Your task to perform on an android device: Do I have any events today? Image 0: 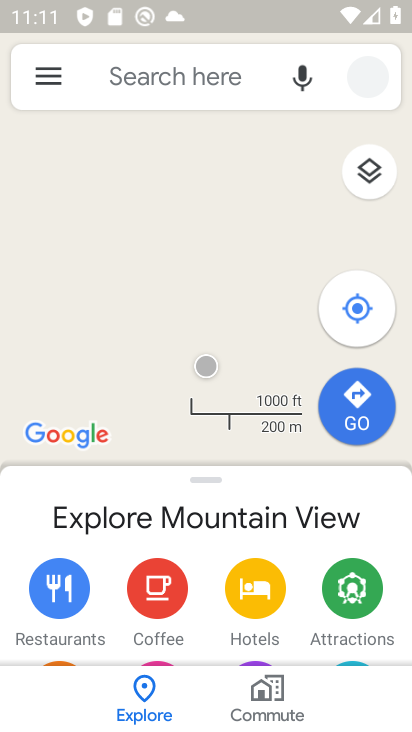
Step 0: press home button
Your task to perform on an android device: Do I have any events today? Image 1: 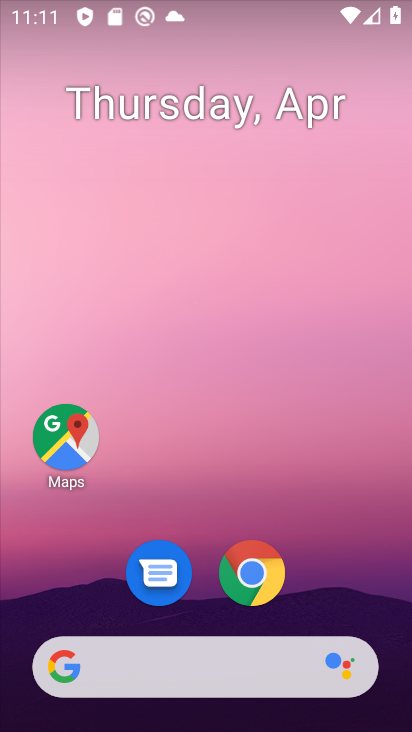
Step 1: drag from (314, 597) to (310, 85)
Your task to perform on an android device: Do I have any events today? Image 2: 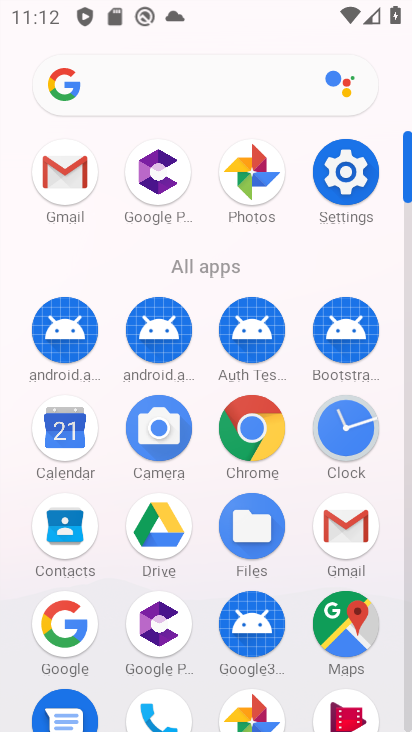
Step 2: click (60, 436)
Your task to perform on an android device: Do I have any events today? Image 3: 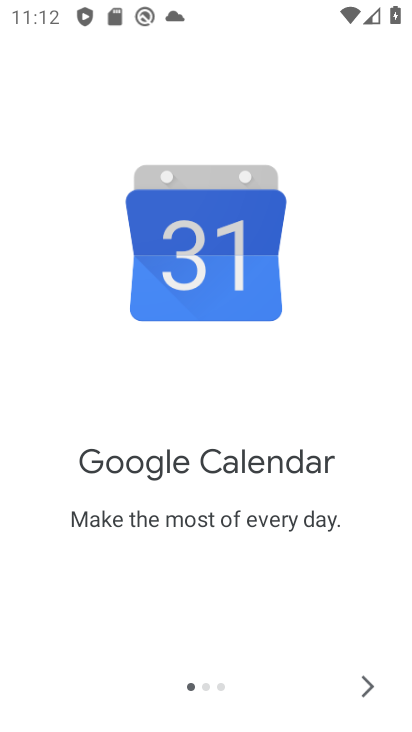
Step 3: click (364, 680)
Your task to perform on an android device: Do I have any events today? Image 4: 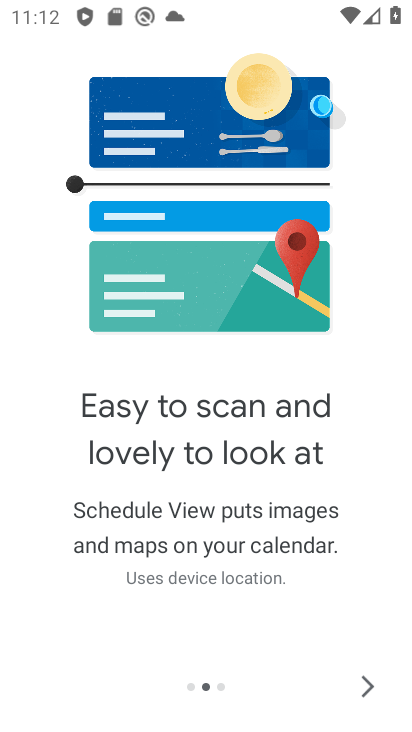
Step 4: click (364, 680)
Your task to perform on an android device: Do I have any events today? Image 5: 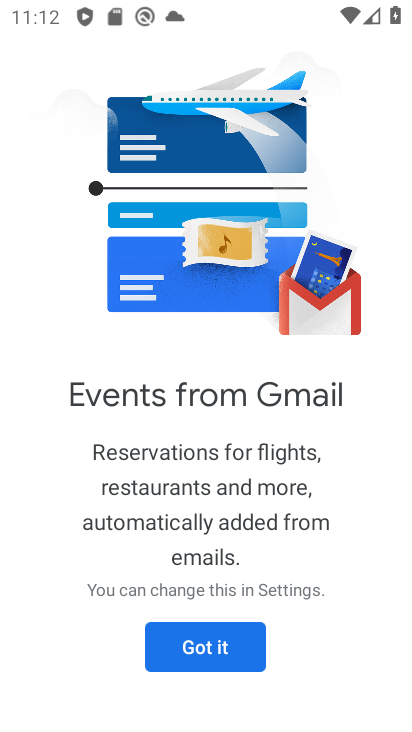
Step 5: click (236, 649)
Your task to perform on an android device: Do I have any events today? Image 6: 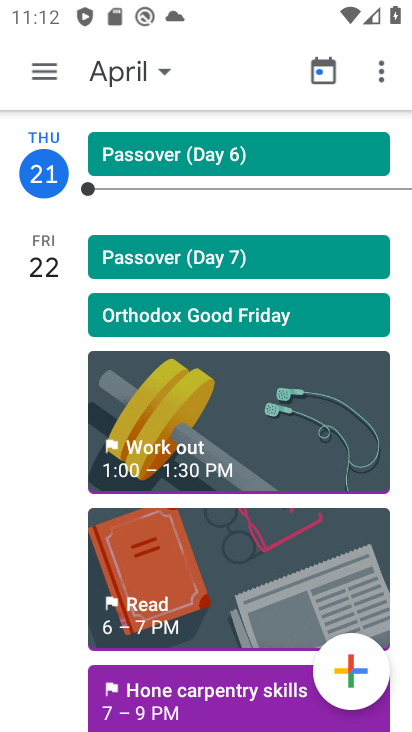
Step 6: click (56, 70)
Your task to perform on an android device: Do I have any events today? Image 7: 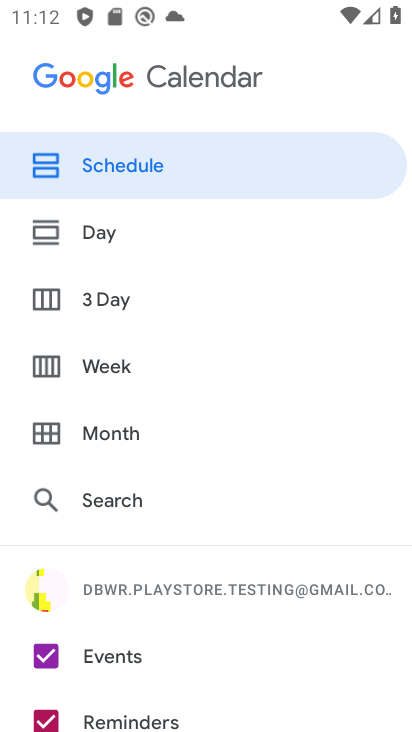
Step 7: drag from (227, 679) to (217, 262)
Your task to perform on an android device: Do I have any events today? Image 8: 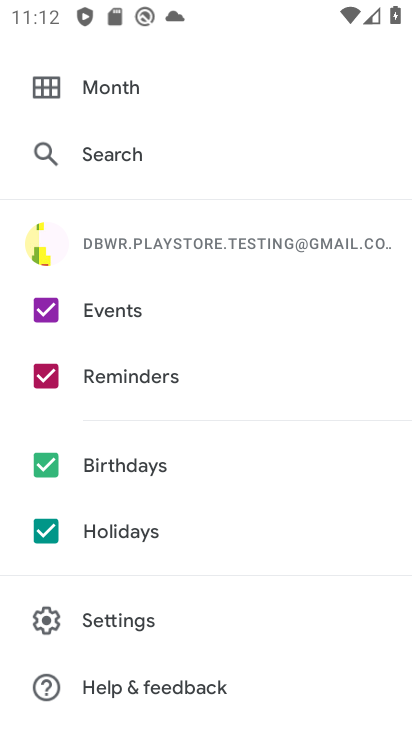
Step 8: click (46, 524)
Your task to perform on an android device: Do I have any events today? Image 9: 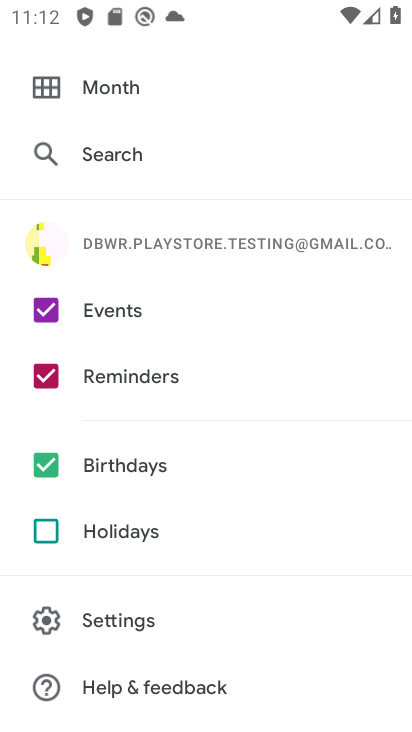
Step 9: click (47, 468)
Your task to perform on an android device: Do I have any events today? Image 10: 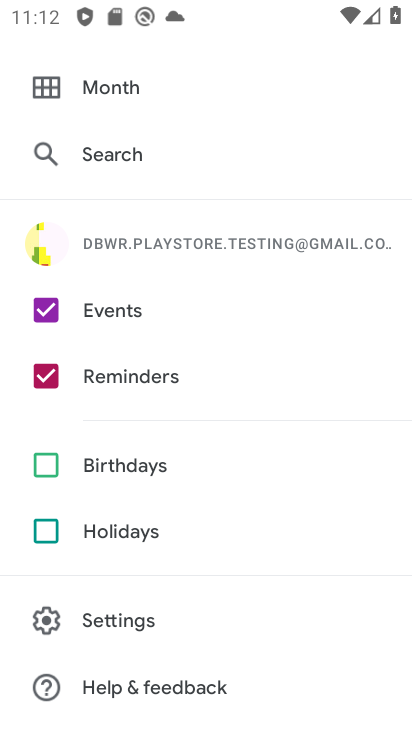
Step 10: click (43, 376)
Your task to perform on an android device: Do I have any events today? Image 11: 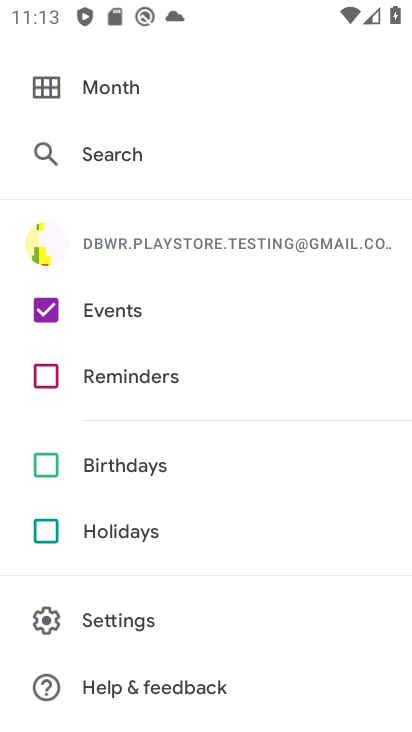
Step 11: drag from (269, 170) to (225, 587)
Your task to perform on an android device: Do I have any events today? Image 12: 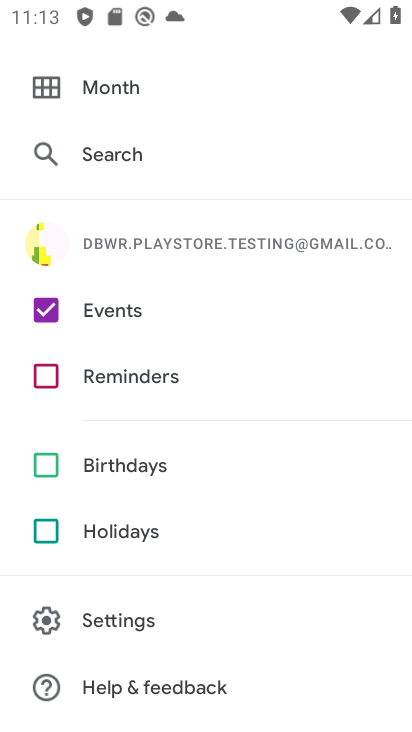
Step 12: drag from (145, 276) to (157, 634)
Your task to perform on an android device: Do I have any events today? Image 13: 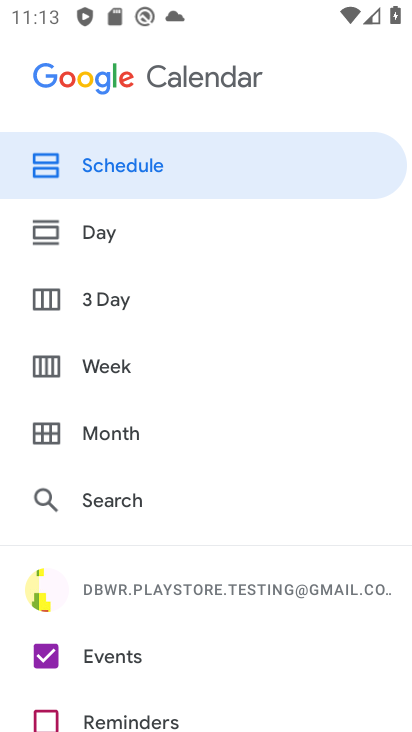
Step 13: click (145, 171)
Your task to perform on an android device: Do I have any events today? Image 14: 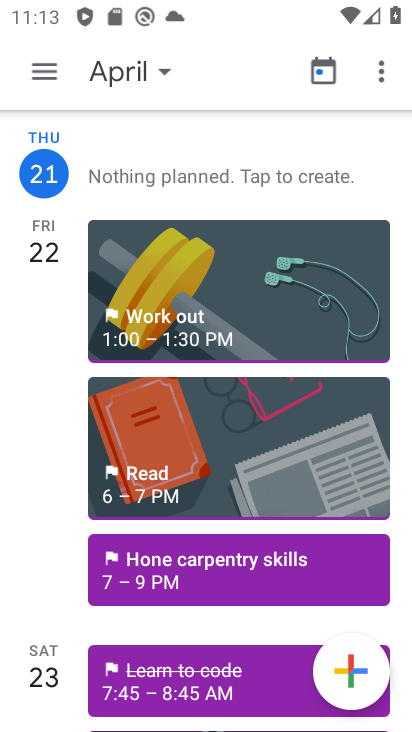
Step 14: task complete